Your task to perform on an android device: Open Reddit.com Image 0: 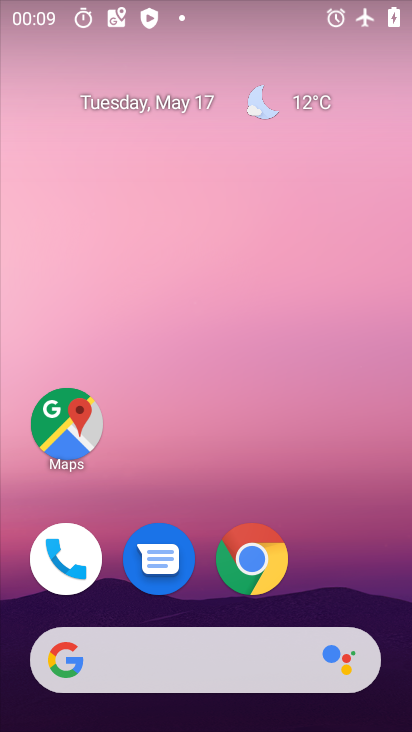
Step 0: click (256, 556)
Your task to perform on an android device: Open Reddit.com Image 1: 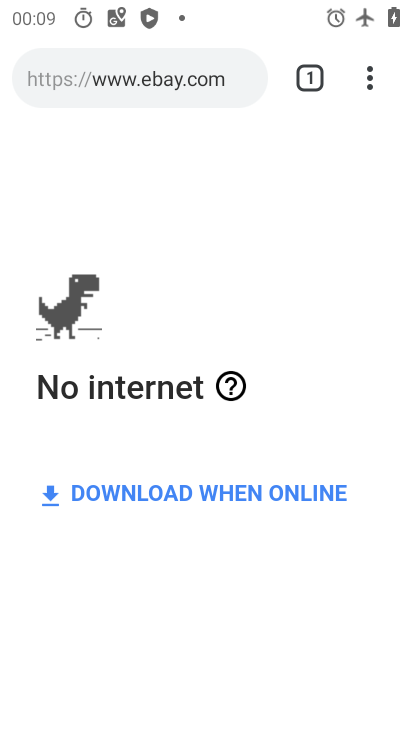
Step 1: click (215, 72)
Your task to perform on an android device: Open Reddit.com Image 2: 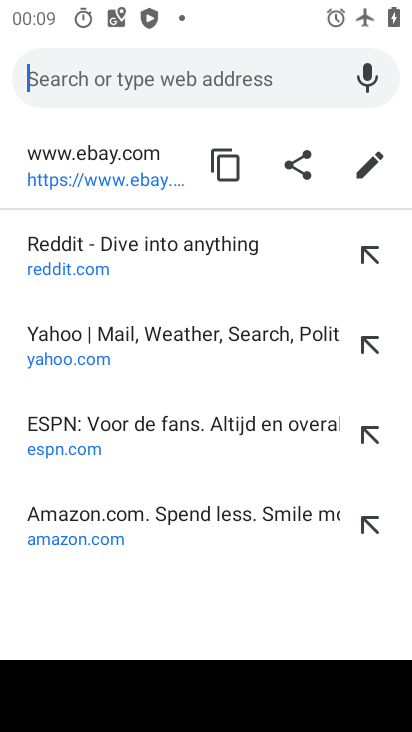
Step 2: click (34, 266)
Your task to perform on an android device: Open Reddit.com Image 3: 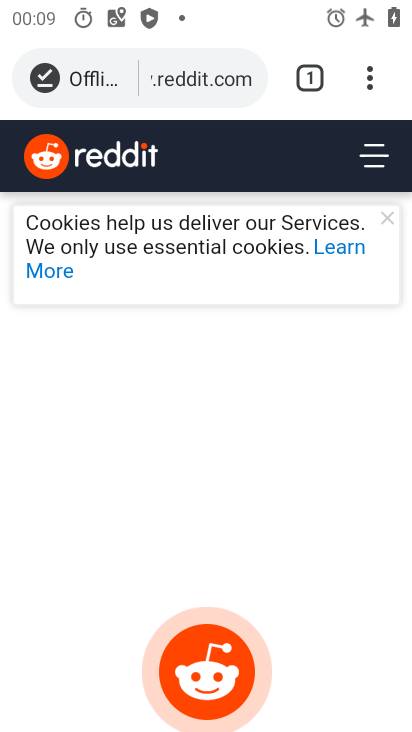
Step 3: task complete